Your task to perform on an android device: toggle pop-ups in chrome Image 0: 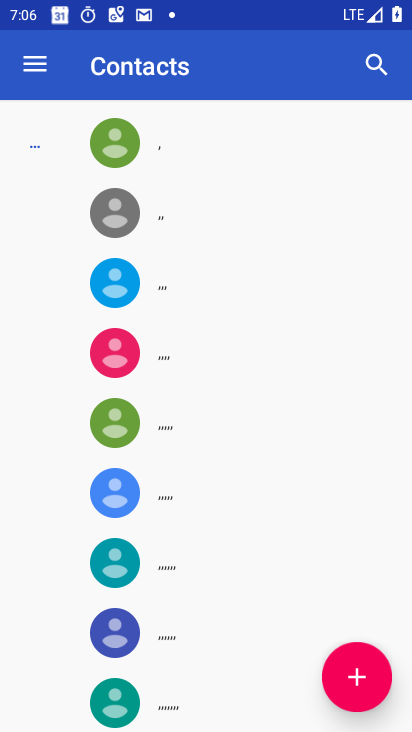
Step 0: press home button
Your task to perform on an android device: toggle pop-ups in chrome Image 1: 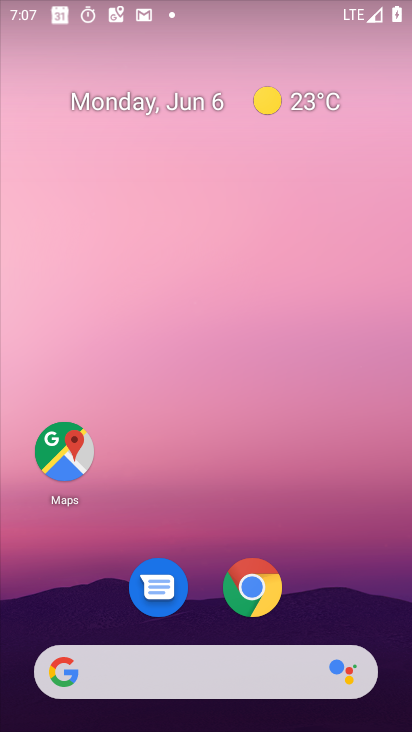
Step 1: drag from (401, 650) to (293, 34)
Your task to perform on an android device: toggle pop-ups in chrome Image 2: 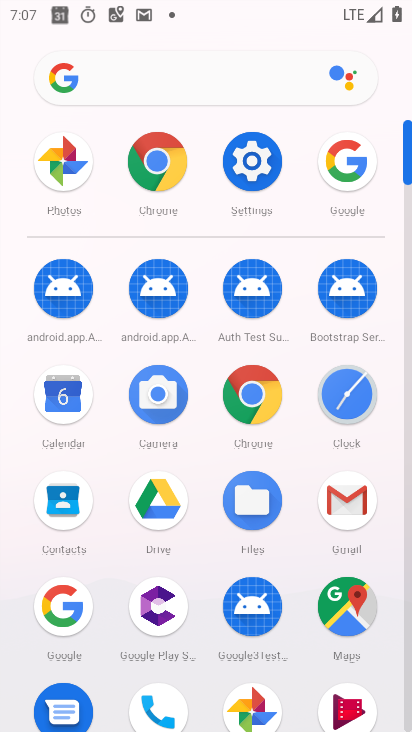
Step 2: click (268, 400)
Your task to perform on an android device: toggle pop-ups in chrome Image 3: 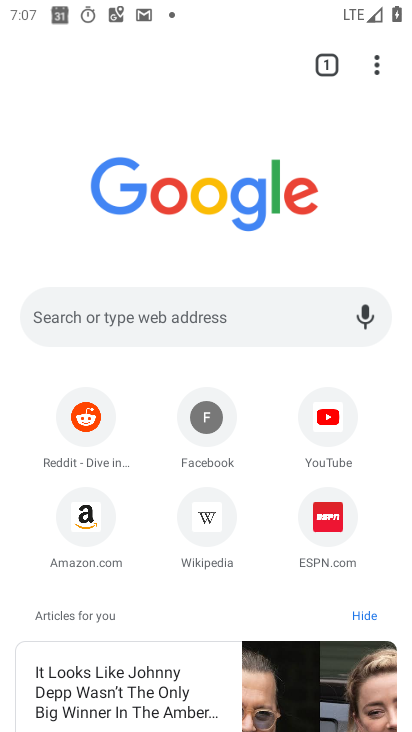
Step 3: click (379, 58)
Your task to perform on an android device: toggle pop-ups in chrome Image 4: 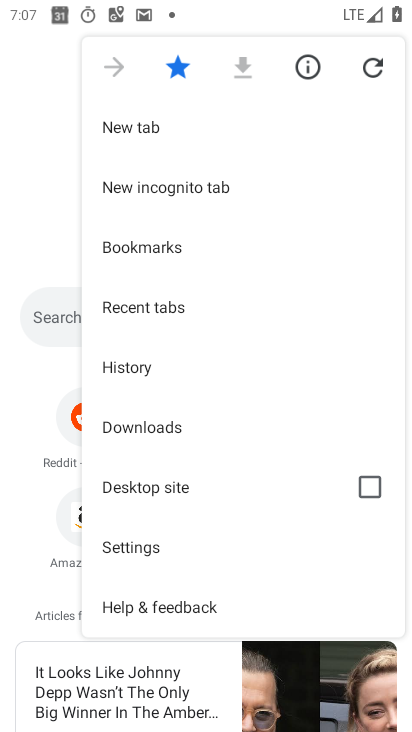
Step 4: click (158, 546)
Your task to perform on an android device: toggle pop-ups in chrome Image 5: 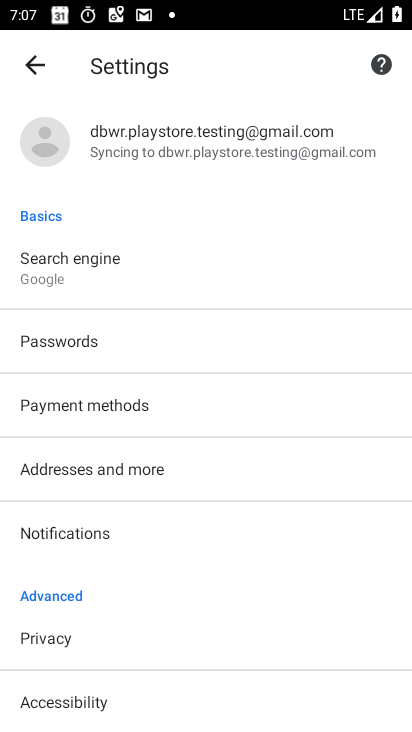
Step 5: drag from (107, 648) to (146, 302)
Your task to perform on an android device: toggle pop-ups in chrome Image 6: 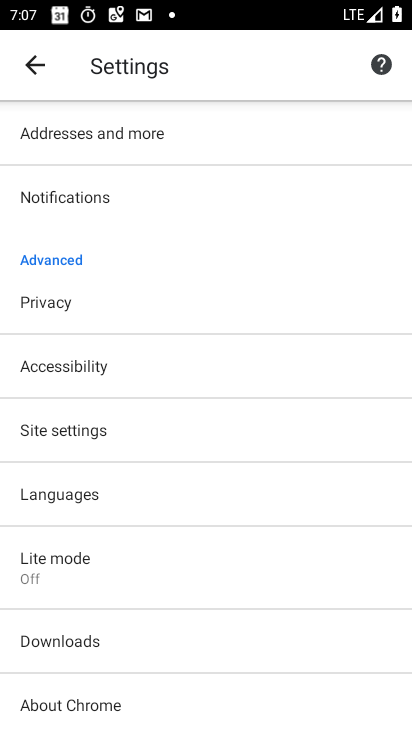
Step 6: click (150, 434)
Your task to perform on an android device: toggle pop-ups in chrome Image 7: 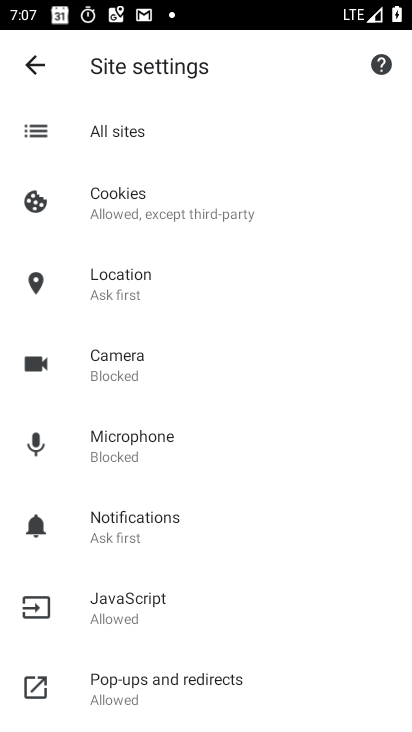
Step 7: click (126, 684)
Your task to perform on an android device: toggle pop-ups in chrome Image 8: 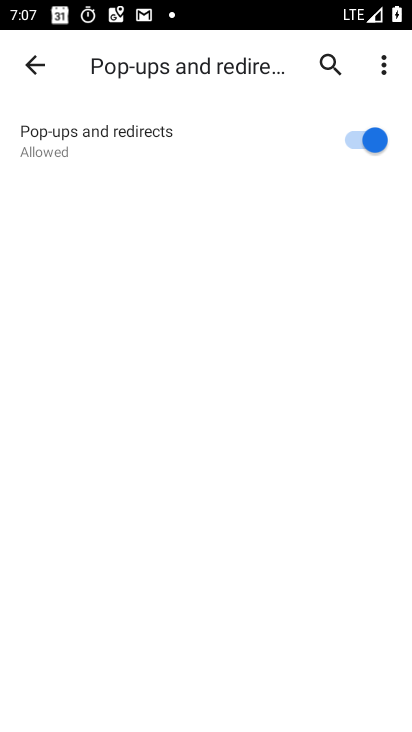
Step 8: click (370, 147)
Your task to perform on an android device: toggle pop-ups in chrome Image 9: 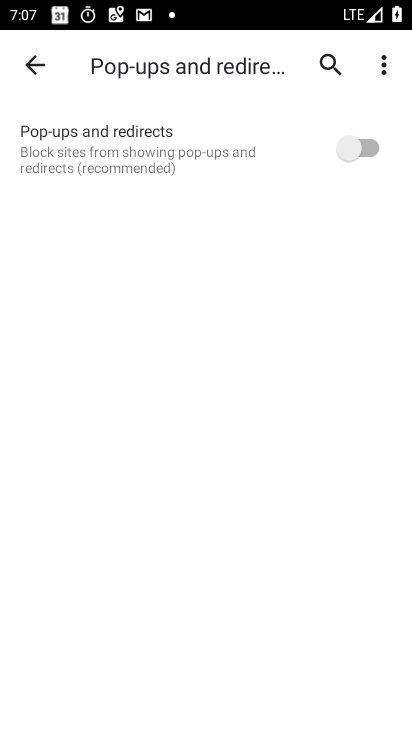
Step 9: task complete